Your task to perform on an android device: check data usage Image 0: 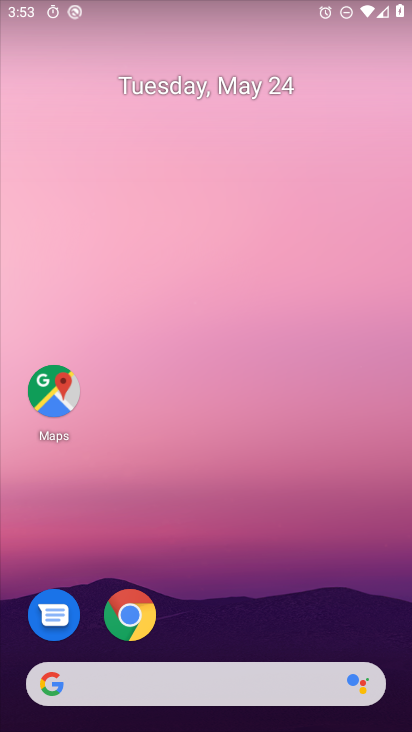
Step 0: drag from (271, 659) to (258, 209)
Your task to perform on an android device: check data usage Image 1: 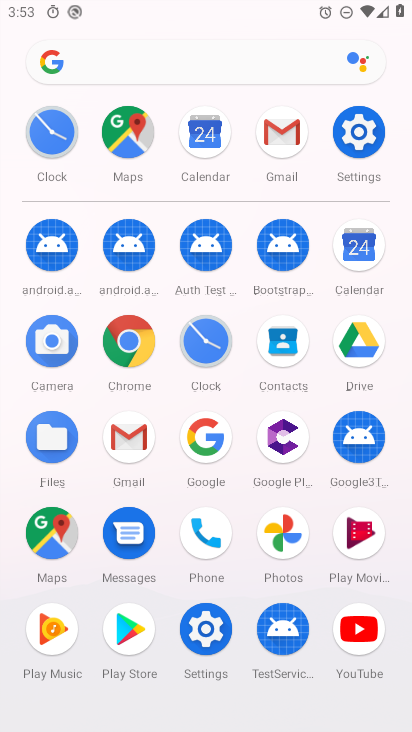
Step 1: click (372, 130)
Your task to perform on an android device: check data usage Image 2: 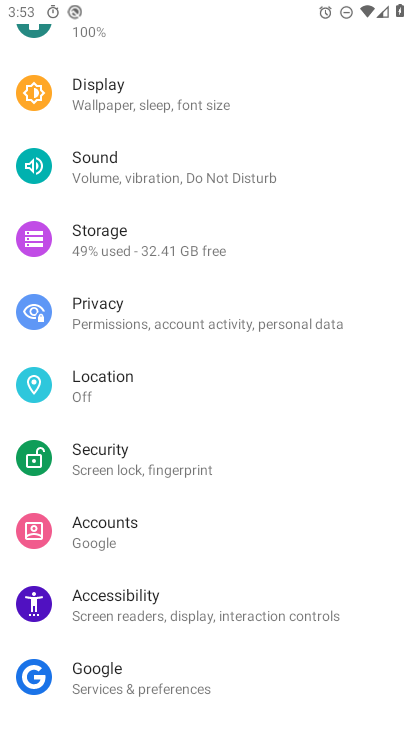
Step 2: drag from (135, 68) to (149, 521)
Your task to perform on an android device: check data usage Image 3: 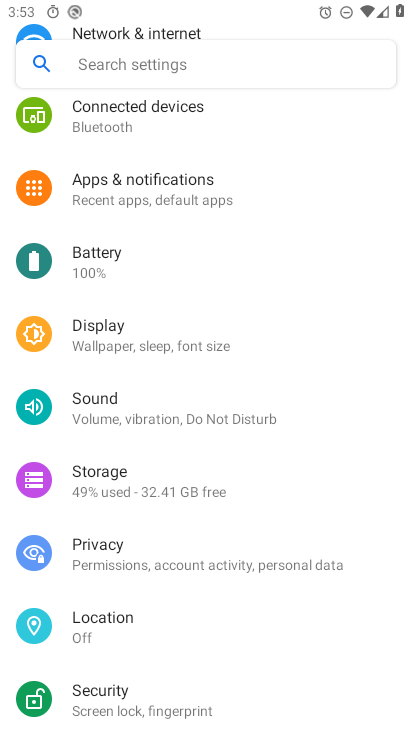
Step 3: drag from (185, 128) to (184, 470)
Your task to perform on an android device: check data usage Image 4: 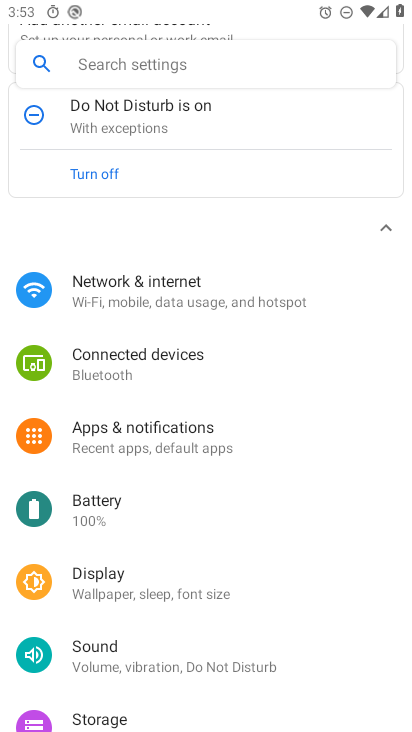
Step 4: click (125, 287)
Your task to perform on an android device: check data usage Image 5: 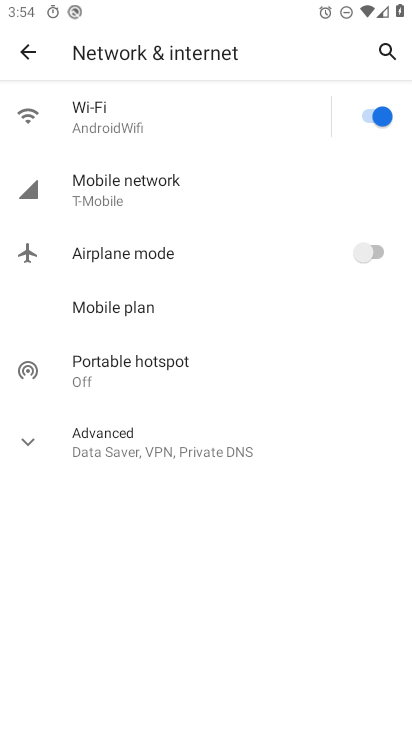
Step 5: click (118, 193)
Your task to perform on an android device: check data usage Image 6: 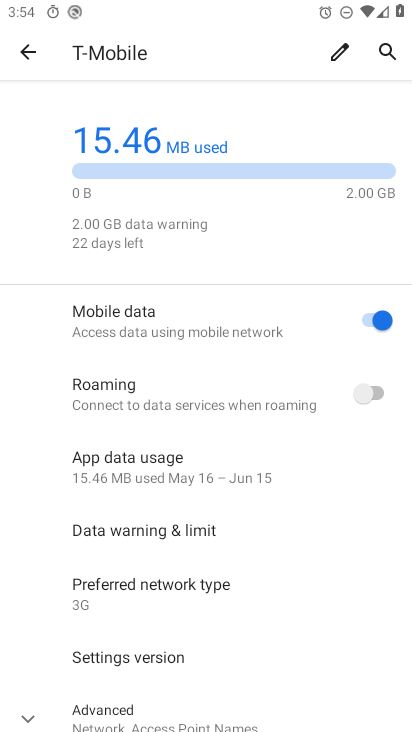
Step 6: drag from (186, 691) to (175, 319)
Your task to perform on an android device: check data usage Image 7: 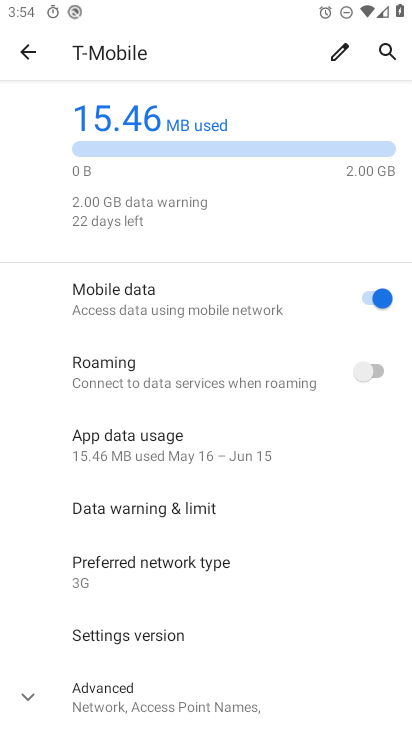
Step 7: click (93, 696)
Your task to perform on an android device: check data usage Image 8: 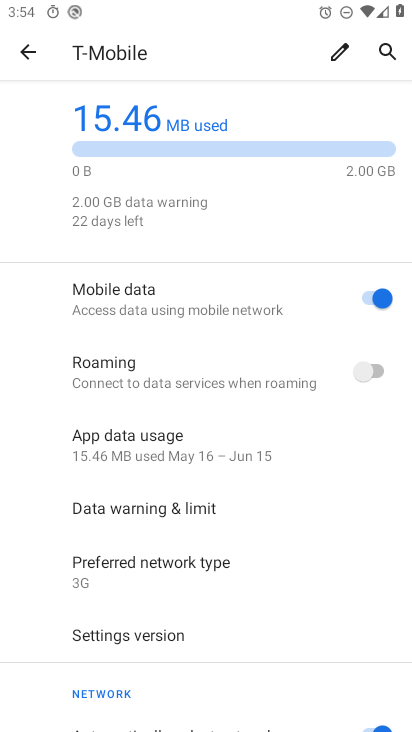
Step 8: task complete